Your task to perform on an android device: Go to Yahoo.com Image 0: 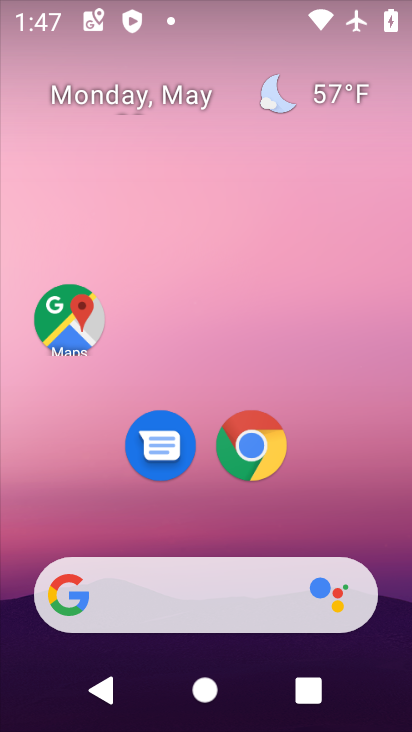
Step 0: click (247, 453)
Your task to perform on an android device: Go to Yahoo.com Image 1: 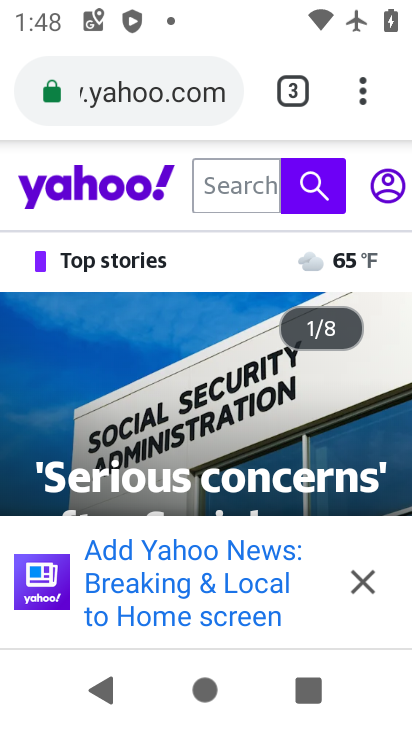
Step 1: task complete